Your task to perform on an android device: turn smart compose on in the gmail app Image 0: 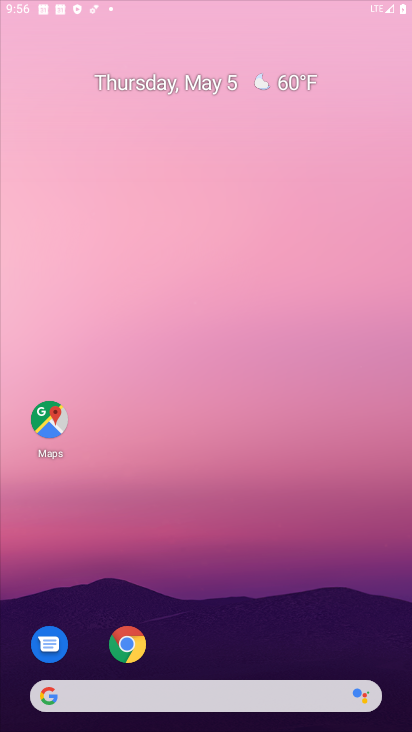
Step 0: drag from (203, 616) to (190, 330)
Your task to perform on an android device: turn smart compose on in the gmail app Image 1: 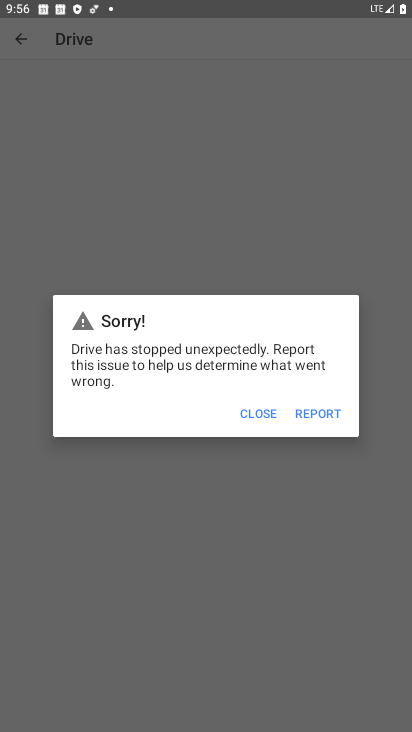
Step 1: press home button
Your task to perform on an android device: turn smart compose on in the gmail app Image 2: 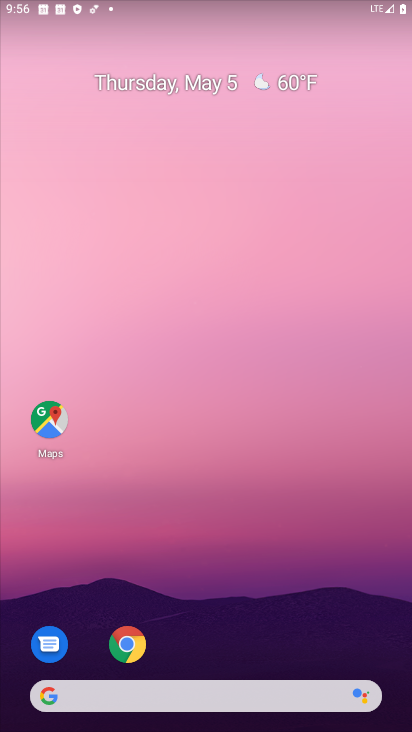
Step 2: drag from (190, 658) to (199, 29)
Your task to perform on an android device: turn smart compose on in the gmail app Image 3: 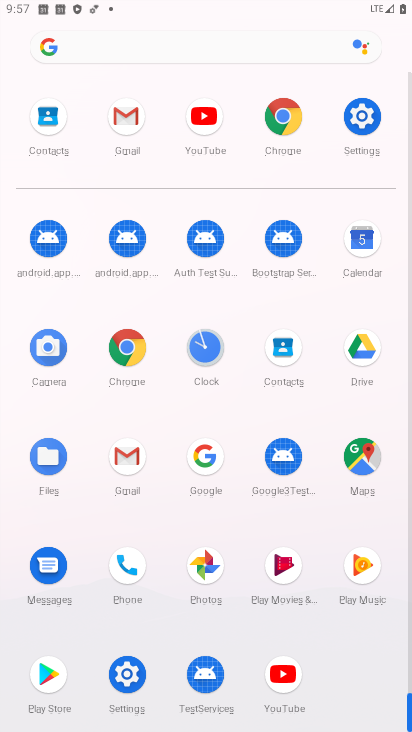
Step 3: click (121, 465)
Your task to perform on an android device: turn smart compose on in the gmail app Image 4: 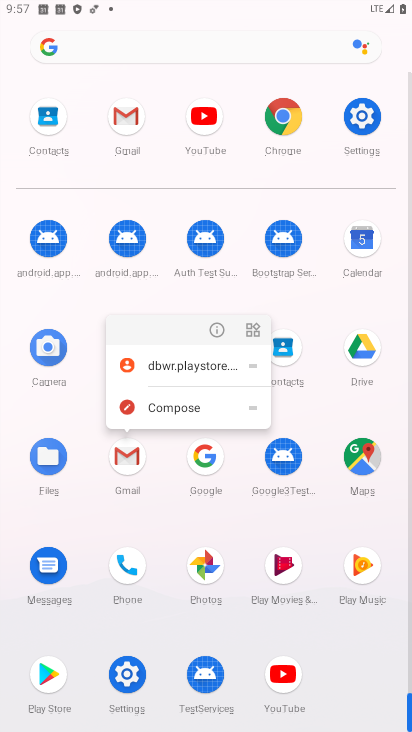
Step 4: click (213, 333)
Your task to perform on an android device: turn smart compose on in the gmail app Image 5: 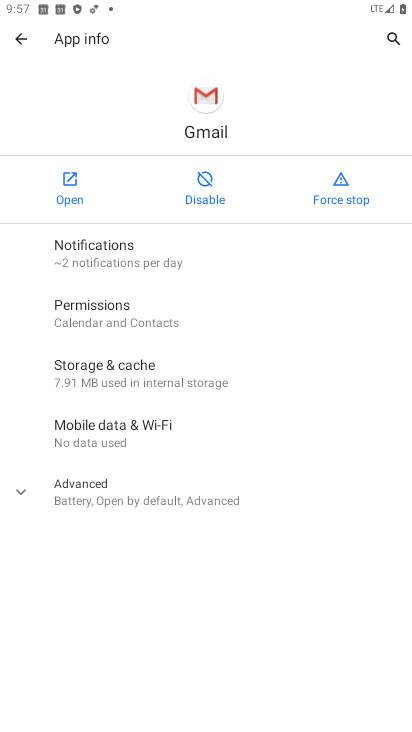
Step 5: click (93, 195)
Your task to perform on an android device: turn smart compose on in the gmail app Image 6: 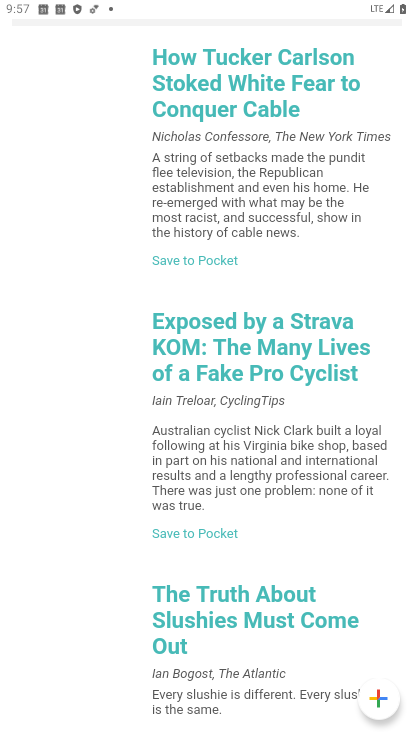
Step 6: drag from (161, 144) to (241, 537)
Your task to perform on an android device: turn smart compose on in the gmail app Image 7: 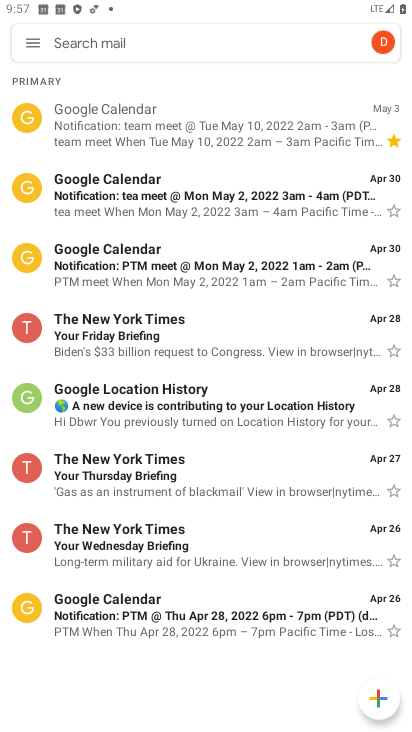
Step 7: click (35, 36)
Your task to perform on an android device: turn smart compose on in the gmail app Image 8: 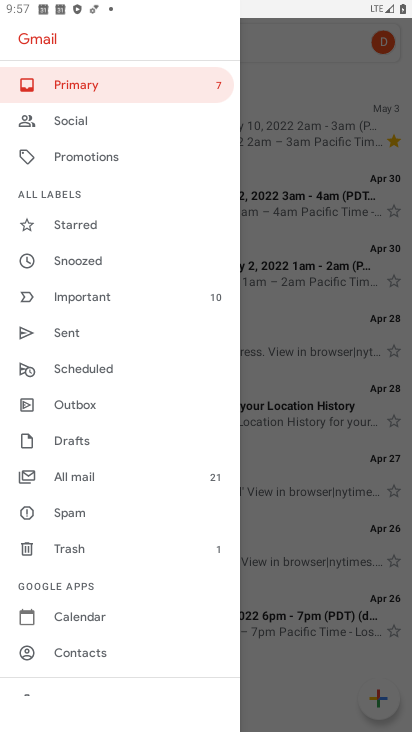
Step 8: drag from (69, 631) to (160, 293)
Your task to perform on an android device: turn smart compose on in the gmail app Image 9: 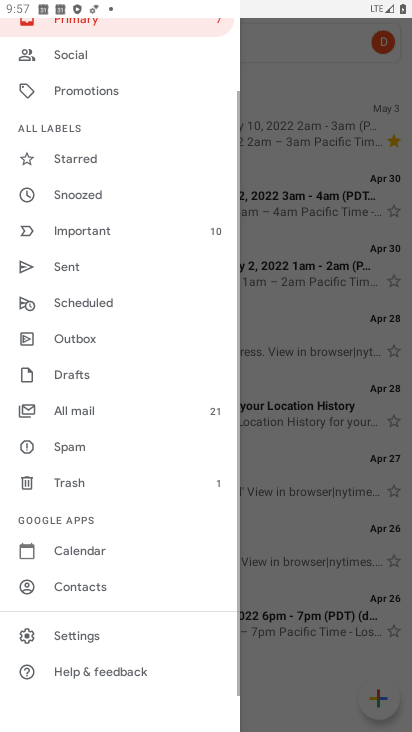
Step 9: click (97, 633)
Your task to perform on an android device: turn smart compose on in the gmail app Image 10: 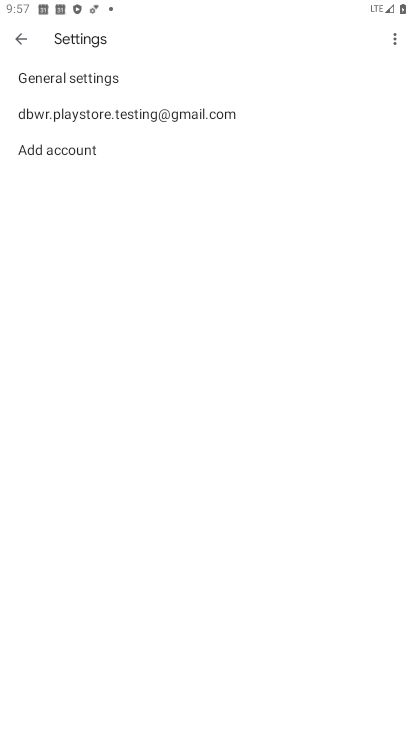
Step 10: click (89, 107)
Your task to perform on an android device: turn smart compose on in the gmail app Image 11: 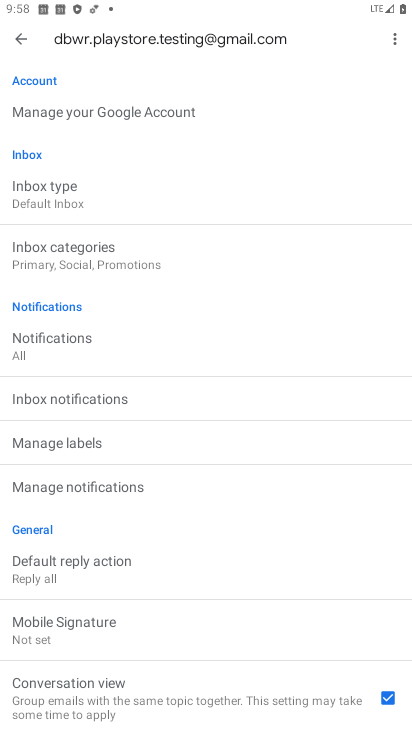
Step 11: drag from (231, 675) to (236, 65)
Your task to perform on an android device: turn smart compose on in the gmail app Image 12: 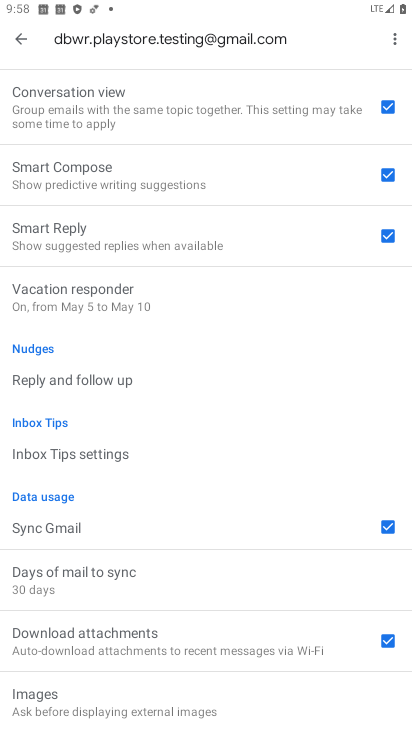
Step 12: click (314, 189)
Your task to perform on an android device: turn smart compose on in the gmail app Image 13: 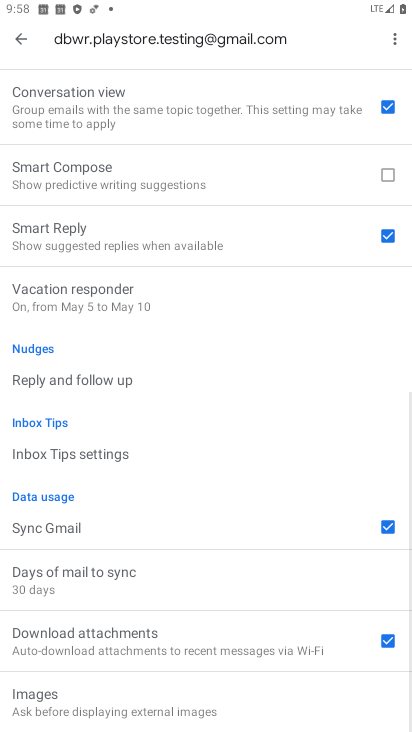
Step 13: task complete